Your task to perform on an android device: Go to Amazon Image 0: 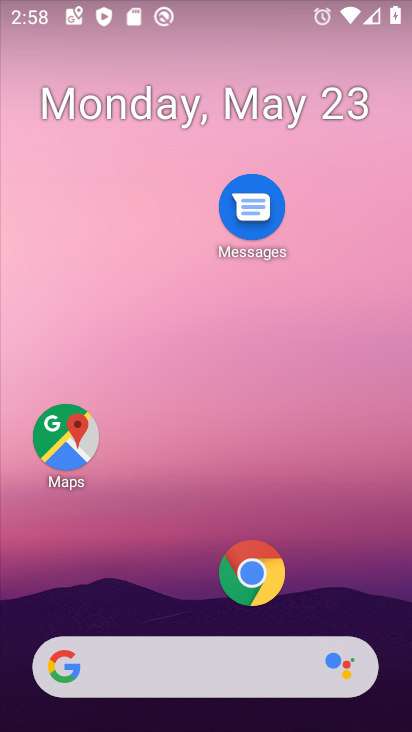
Step 0: drag from (297, 618) to (258, 66)
Your task to perform on an android device: Go to Amazon Image 1: 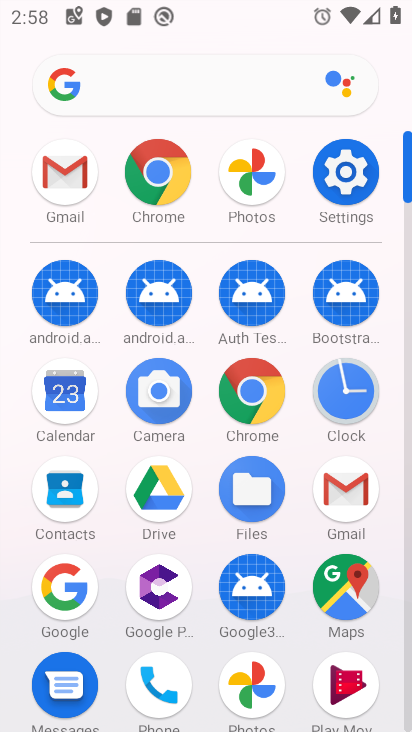
Step 1: click (242, 390)
Your task to perform on an android device: Go to Amazon Image 2: 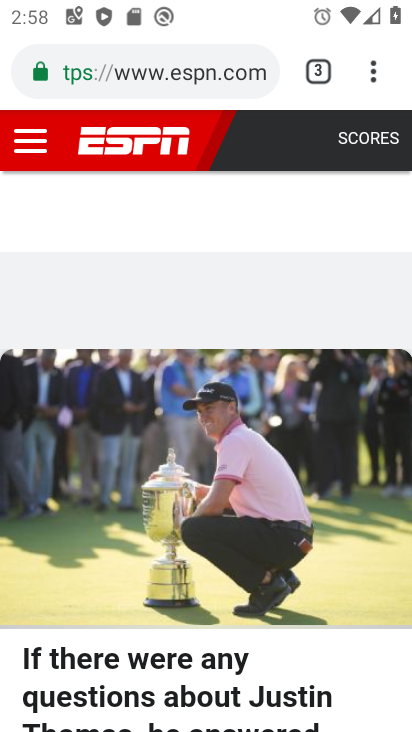
Step 2: drag from (373, 68) to (165, 128)
Your task to perform on an android device: Go to Amazon Image 3: 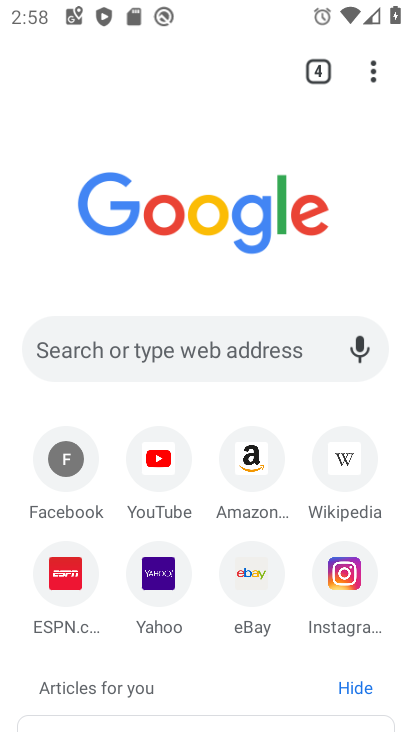
Step 3: click (228, 440)
Your task to perform on an android device: Go to Amazon Image 4: 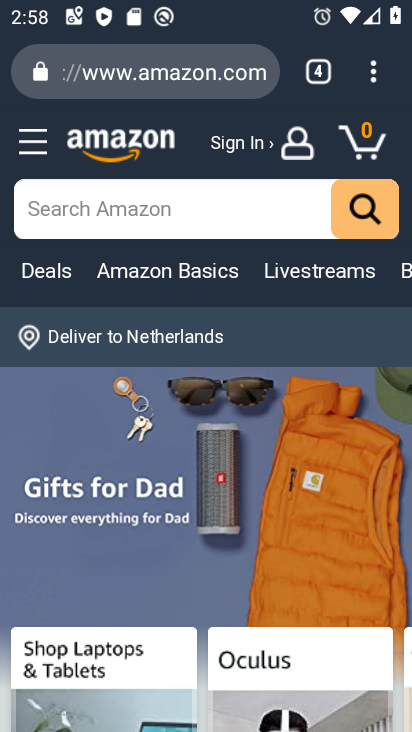
Step 4: task complete